Your task to perform on an android device: delete browsing data in the chrome app Image 0: 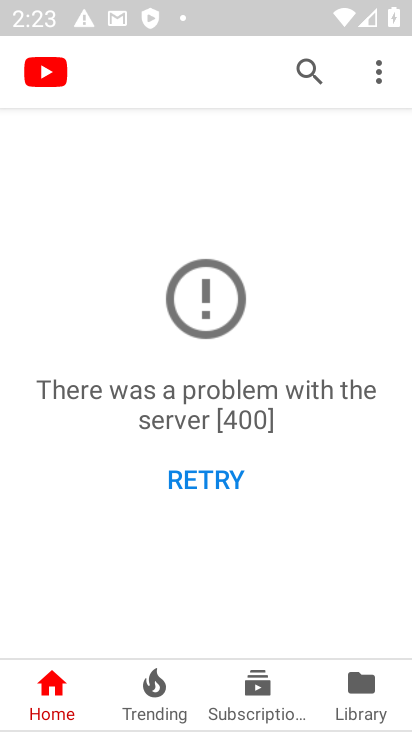
Step 0: press home button
Your task to perform on an android device: delete browsing data in the chrome app Image 1: 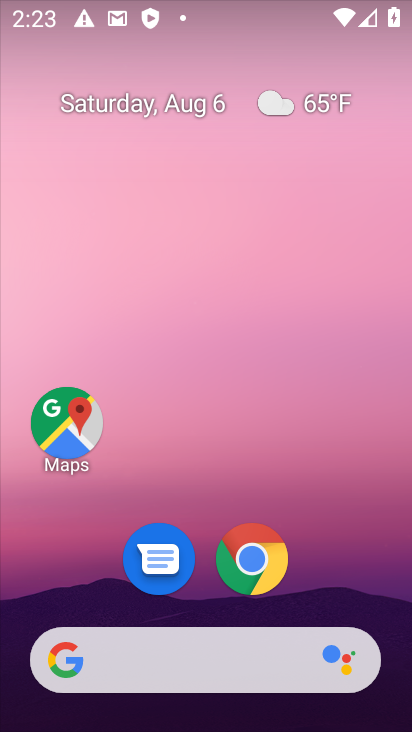
Step 1: click (257, 566)
Your task to perform on an android device: delete browsing data in the chrome app Image 2: 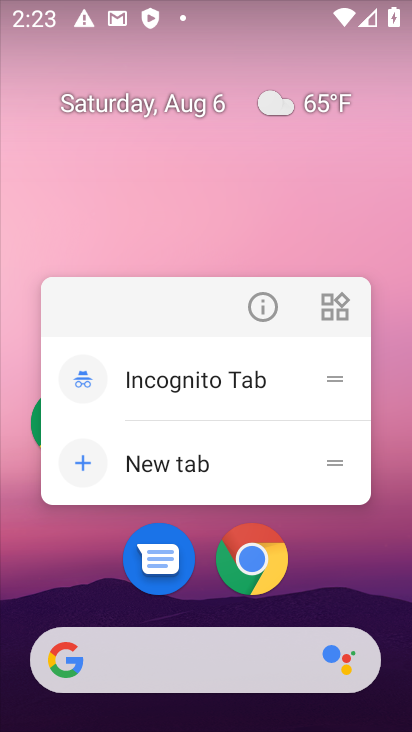
Step 2: click (257, 566)
Your task to perform on an android device: delete browsing data in the chrome app Image 3: 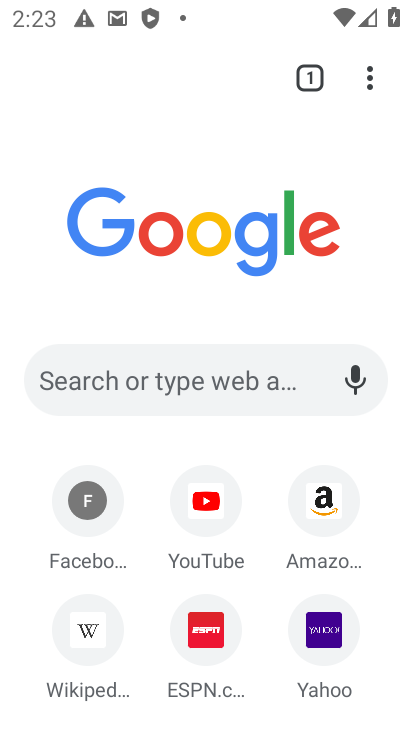
Step 3: click (369, 92)
Your task to perform on an android device: delete browsing data in the chrome app Image 4: 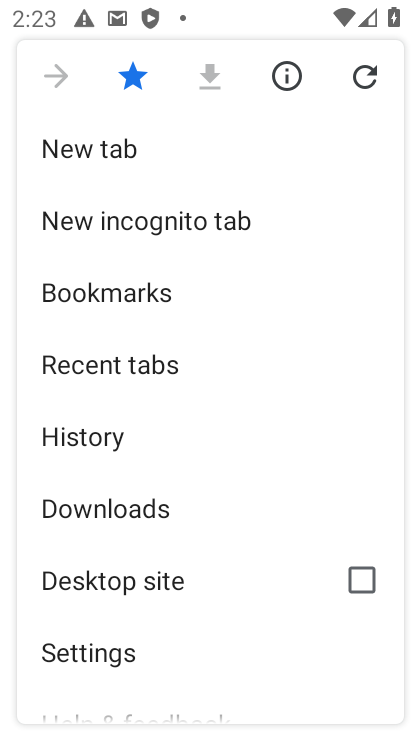
Step 4: click (123, 452)
Your task to perform on an android device: delete browsing data in the chrome app Image 5: 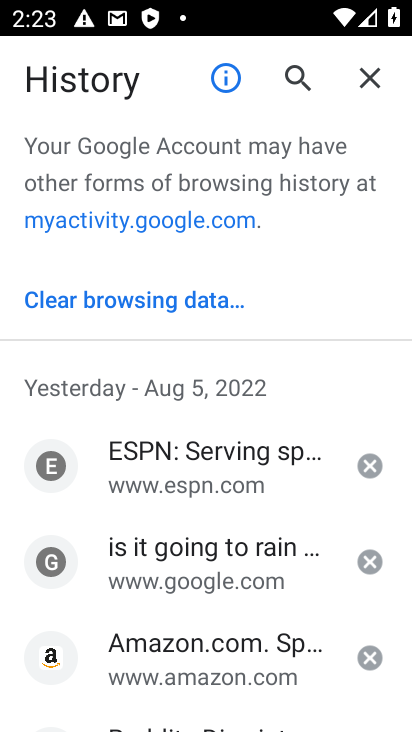
Step 5: click (121, 297)
Your task to perform on an android device: delete browsing data in the chrome app Image 6: 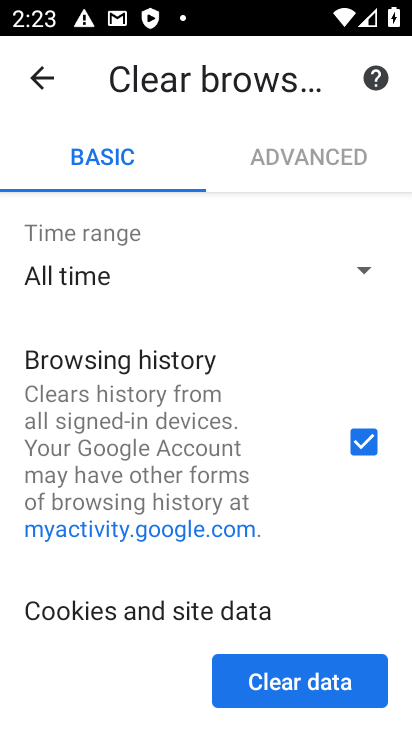
Step 6: drag from (270, 582) to (269, 201)
Your task to perform on an android device: delete browsing data in the chrome app Image 7: 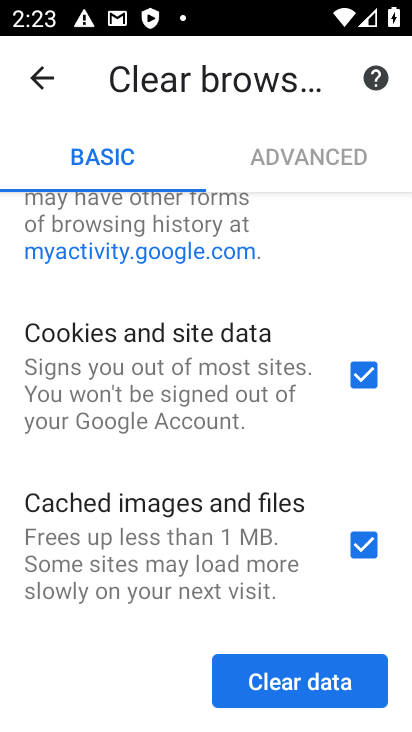
Step 7: click (315, 692)
Your task to perform on an android device: delete browsing data in the chrome app Image 8: 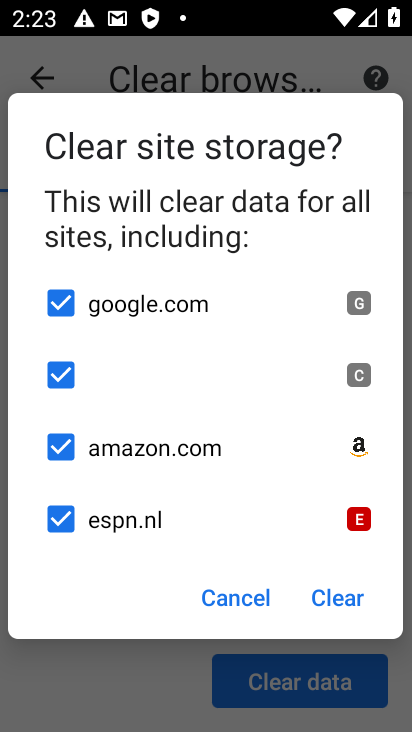
Step 8: click (353, 607)
Your task to perform on an android device: delete browsing data in the chrome app Image 9: 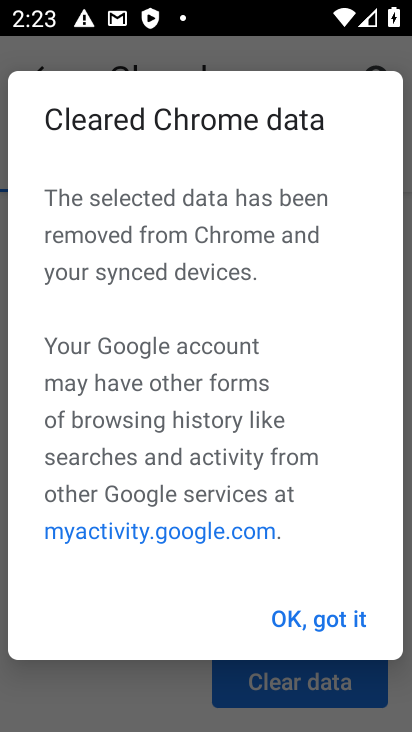
Step 9: click (352, 617)
Your task to perform on an android device: delete browsing data in the chrome app Image 10: 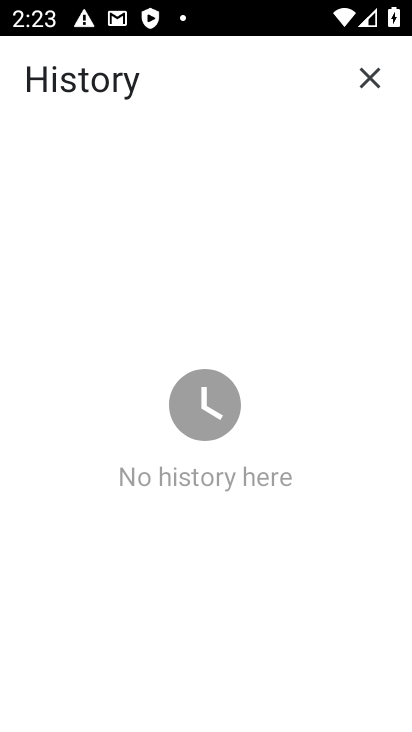
Step 10: task complete